Your task to perform on an android device: check storage Image 0: 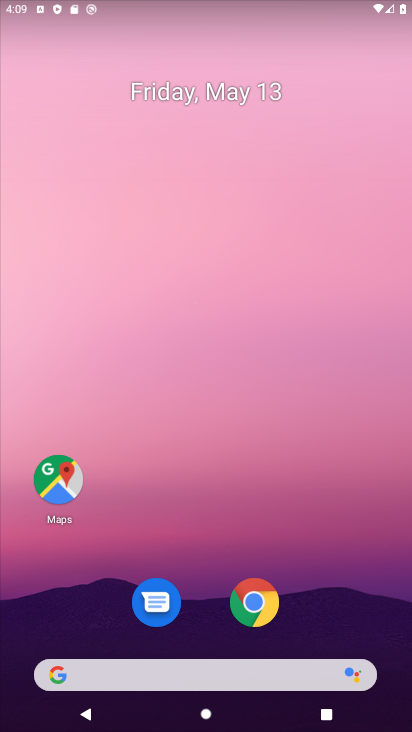
Step 0: drag from (167, 660) to (228, 211)
Your task to perform on an android device: check storage Image 1: 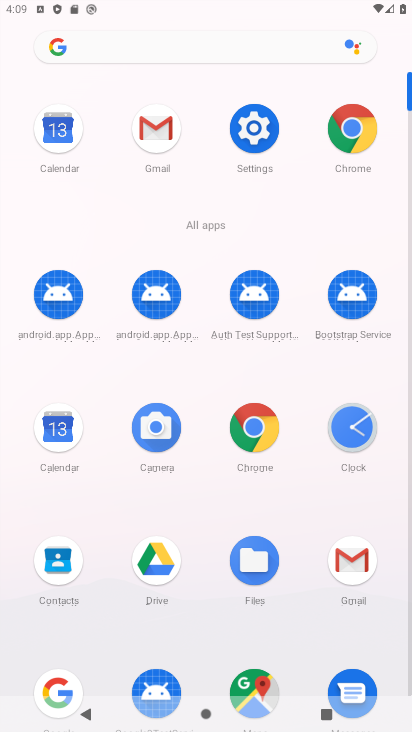
Step 1: click (255, 130)
Your task to perform on an android device: check storage Image 2: 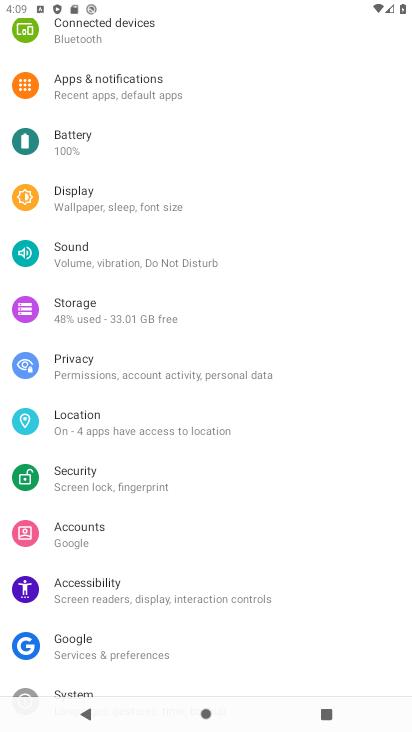
Step 2: click (69, 323)
Your task to perform on an android device: check storage Image 3: 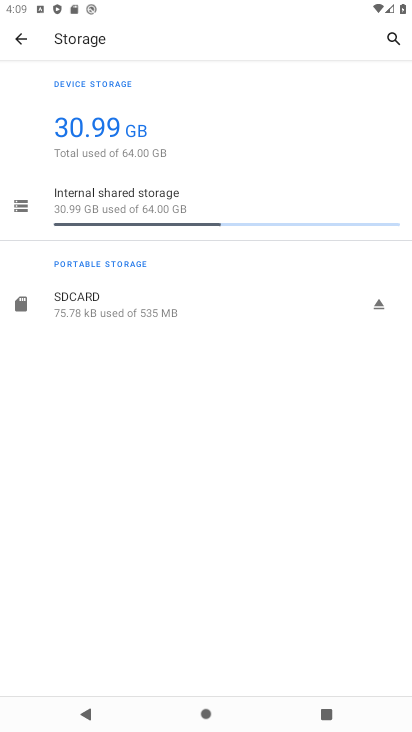
Step 3: task complete